Your task to perform on an android device: read, delete, or share a saved page in the chrome app Image 0: 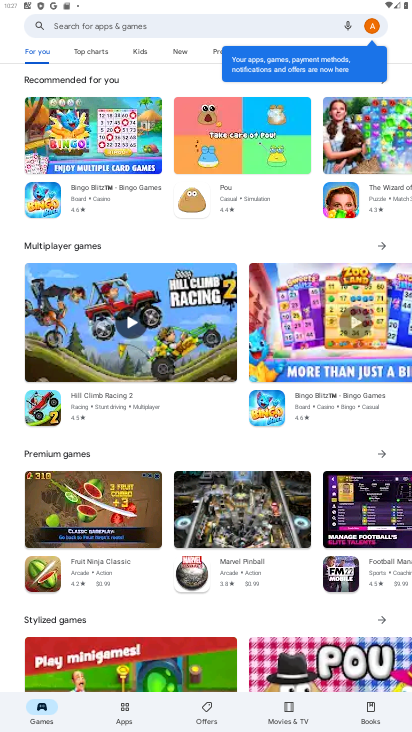
Step 0: press home button
Your task to perform on an android device: read, delete, or share a saved page in the chrome app Image 1: 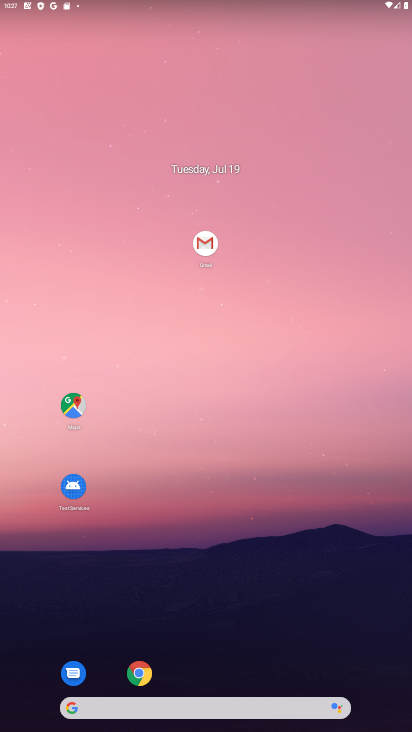
Step 1: click (145, 674)
Your task to perform on an android device: read, delete, or share a saved page in the chrome app Image 2: 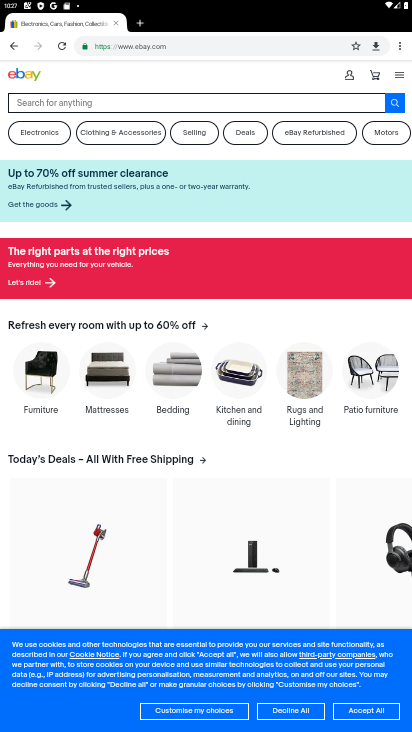
Step 2: click (401, 49)
Your task to perform on an android device: read, delete, or share a saved page in the chrome app Image 3: 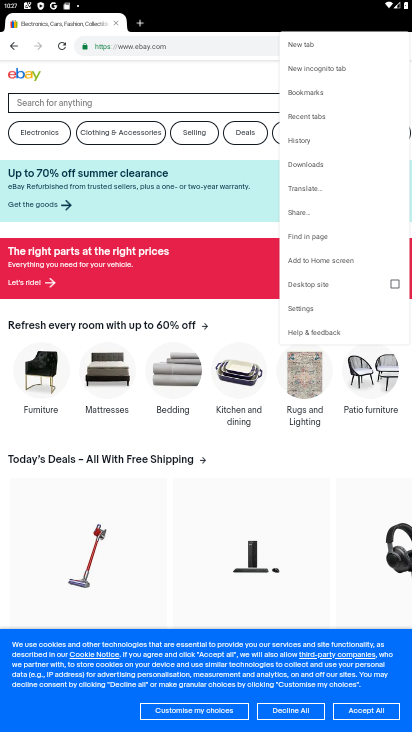
Step 3: click (303, 162)
Your task to perform on an android device: read, delete, or share a saved page in the chrome app Image 4: 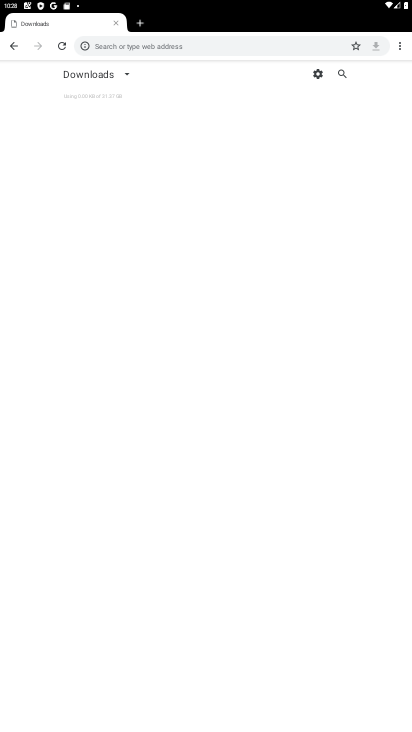
Step 4: task complete